Your task to perform on an android device: What is the recent news? Image 0: 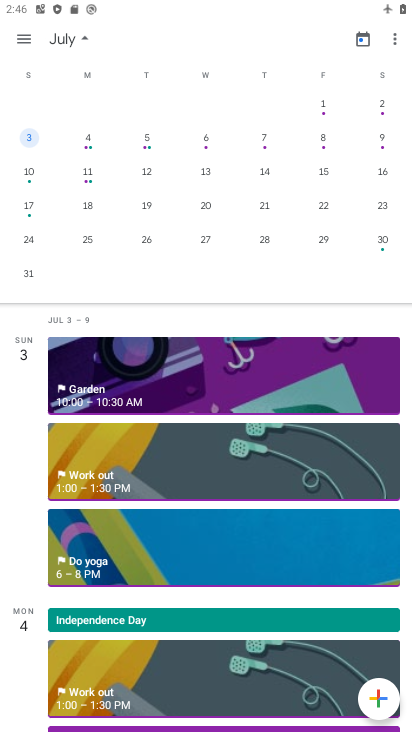
Step 0: press home button
Your task to perform on an android device: What is the recent news? Image 1: 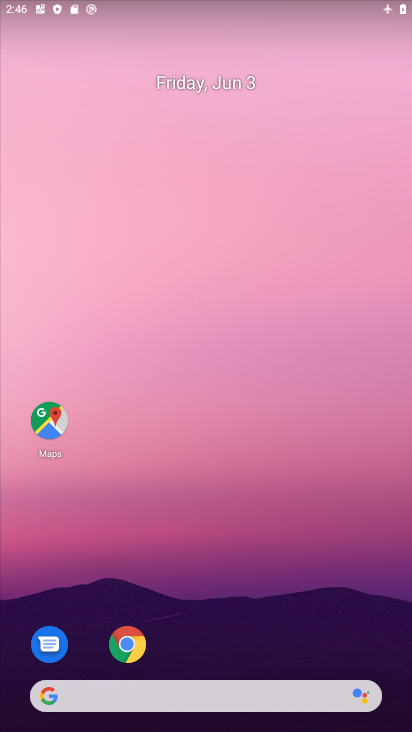
Step 1: drag from (229, 639) to (243, 243)
Your task to perform on an android device: What is the recent news? Image 2: 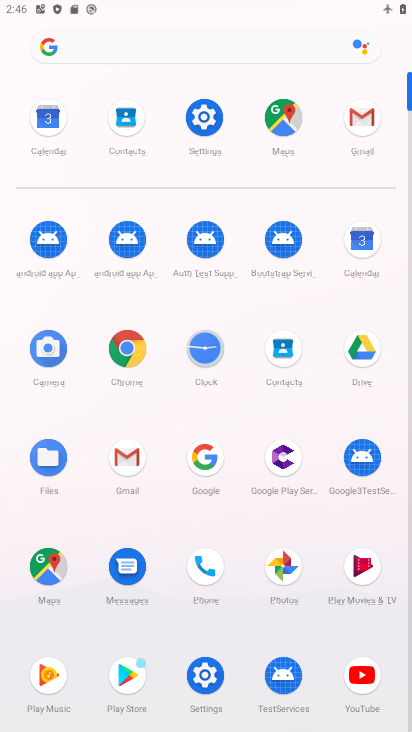
Step 2: click (210, 460)
Your task to perform on an android device: What is the recent news? Image 3: 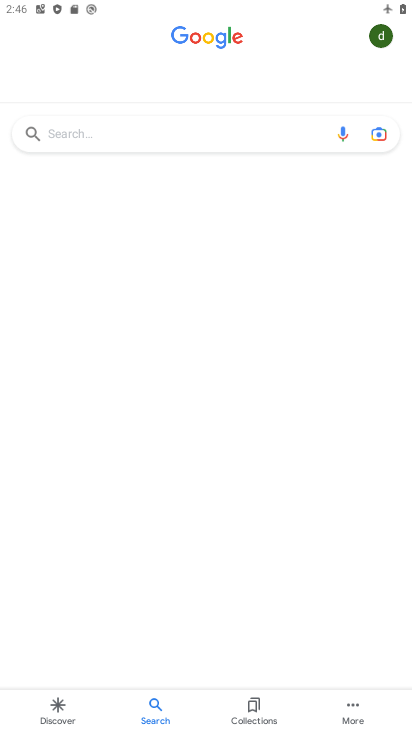
Step 3: click (162, 142)
Your task to perform on an android device: What is the recent news? Image 4: 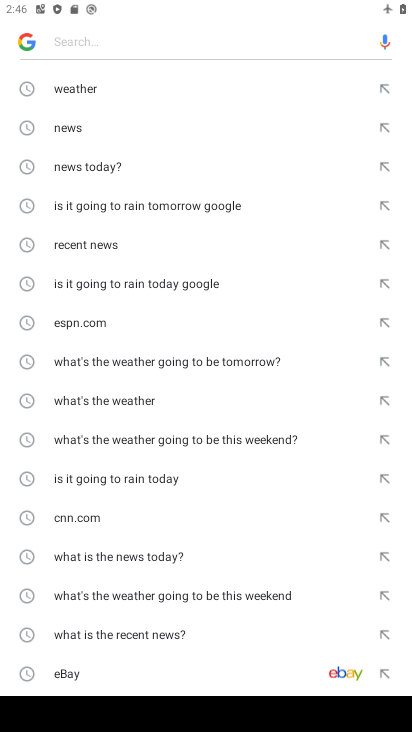
Step 4: click (92, 130)
Your task to perform on an android device: What is the recent news? Image 5: 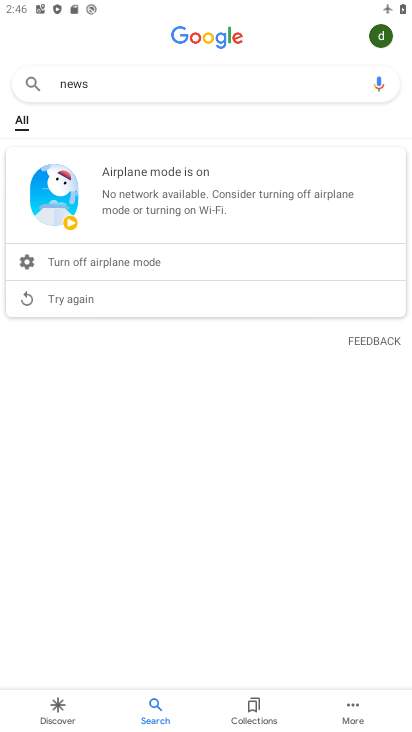
Step 5: task complete